Your task to perform on an android device: Open Chrome and go to the settings page Image 0: 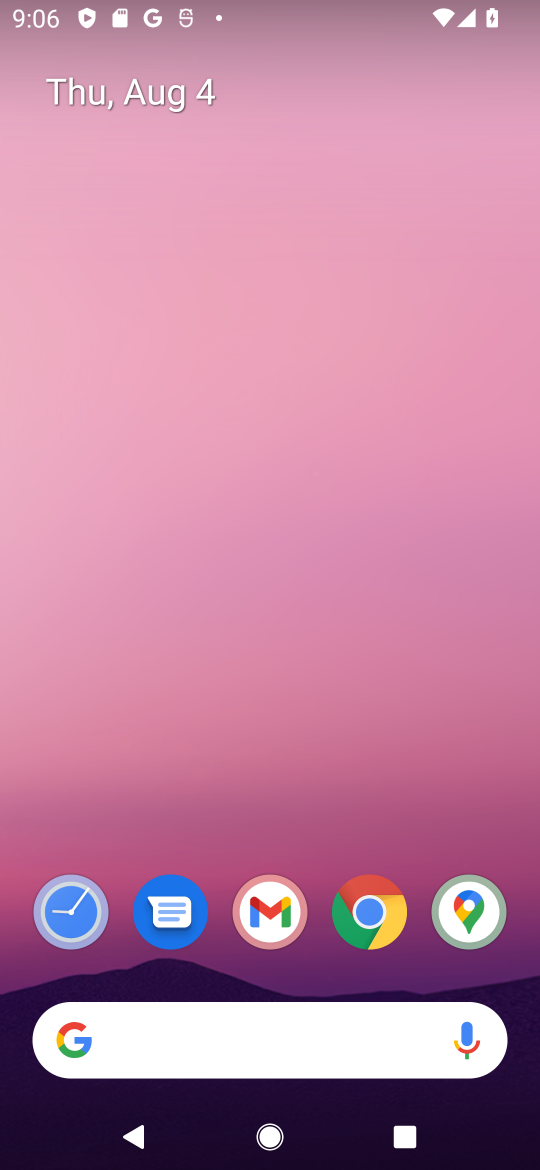
Step 0: drag from (440, 844) to (287, 63)
Your task to perform on an android device: Open Chrome and go to the settings page Image 1: 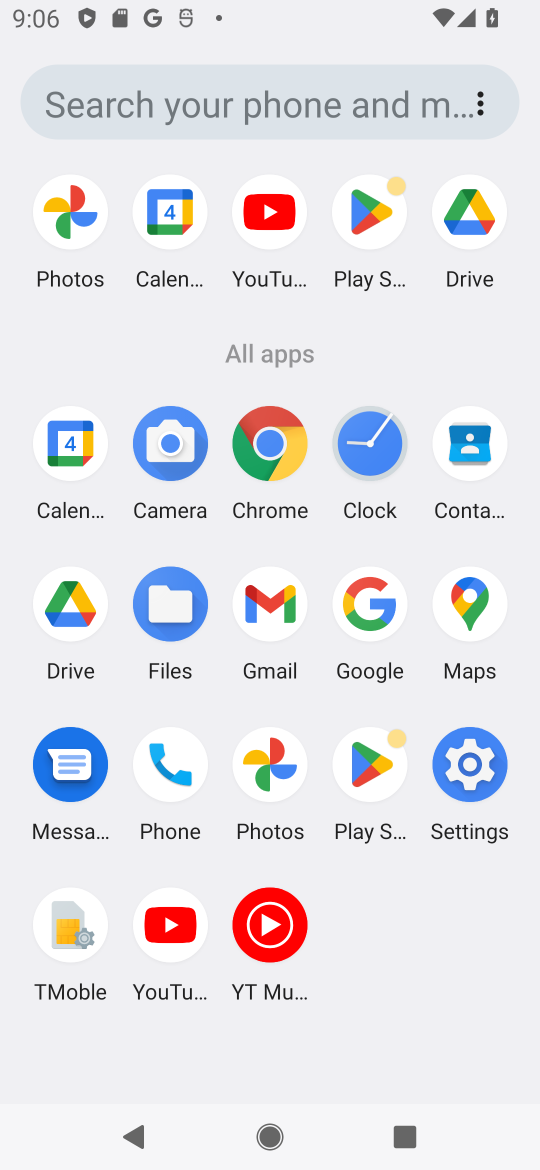
Step 1: click (287, 445)
Your task to perform on an android device: Open Chrome and go to the settings page Image 2: 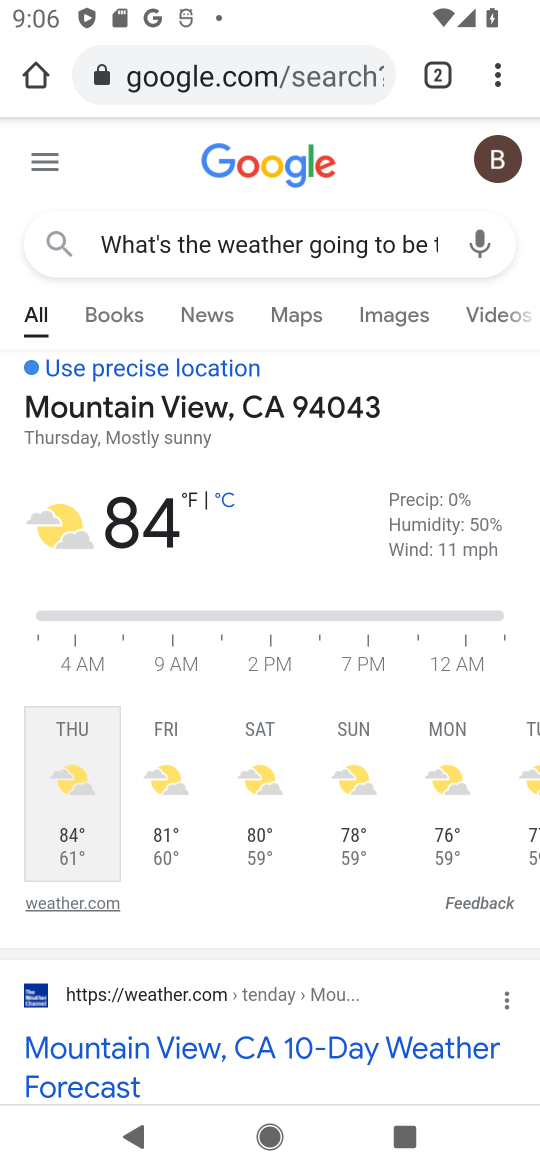
Step 2: click (502, 78)
Your task to perform on an android device: Open Chrome and go to the settings page Image 3: 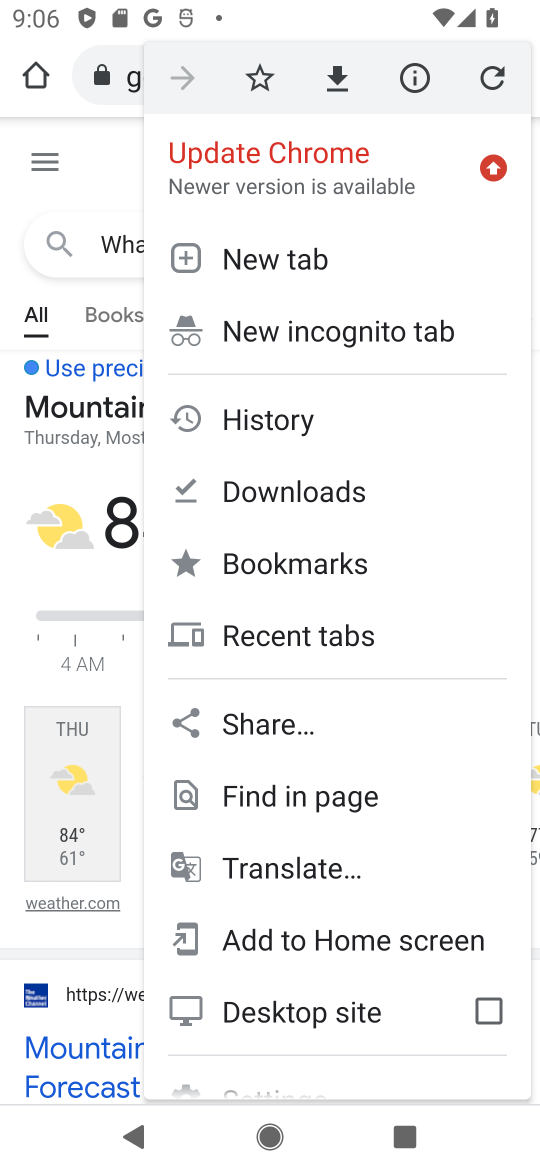
Step 3: drag from (379, 1044) to (360, 554)
Your task to perform on an android device: Open Chrome and go to the settings page Image 4: 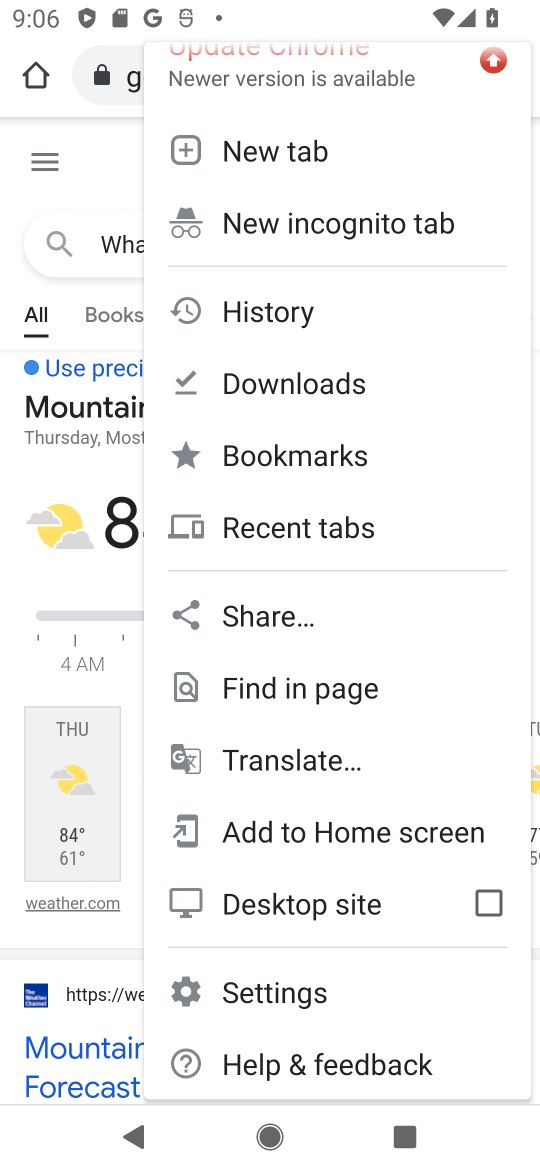
Step 4: click (388, 975)
Your task to perform on an android device: Open Chrome and go to the settings page Image 5: 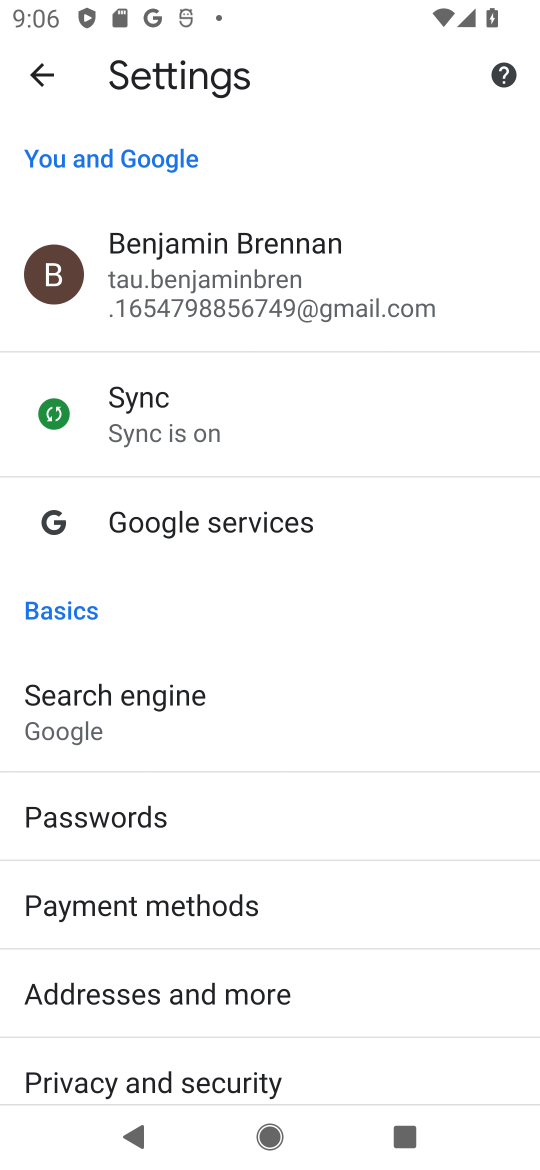
Step 5: task complete